Your task to perform on an android device: Open Google Maps and go to "Timeline" Image 0: 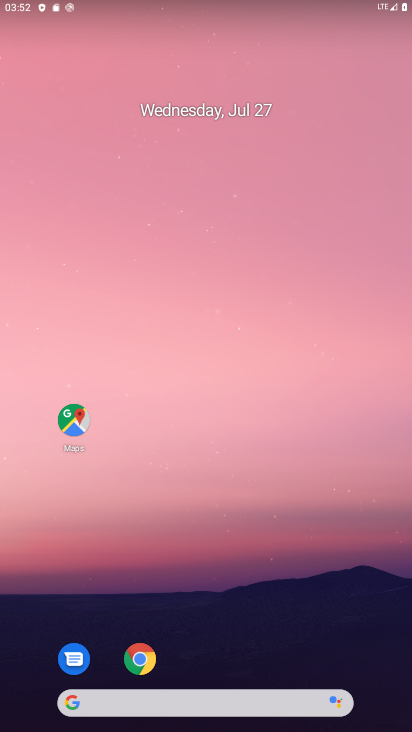
Step 0: click (68, 421)
Your task to perform on an android device: Open Google Maps and go to "Timeline" Image 1: 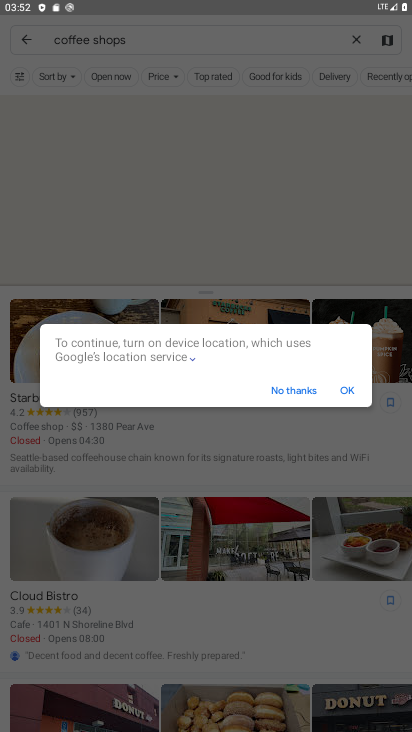
Step 1: click (360, 41)
Your task to perform on an android device: Open Google Maps and go to "Timeline" Image 2: 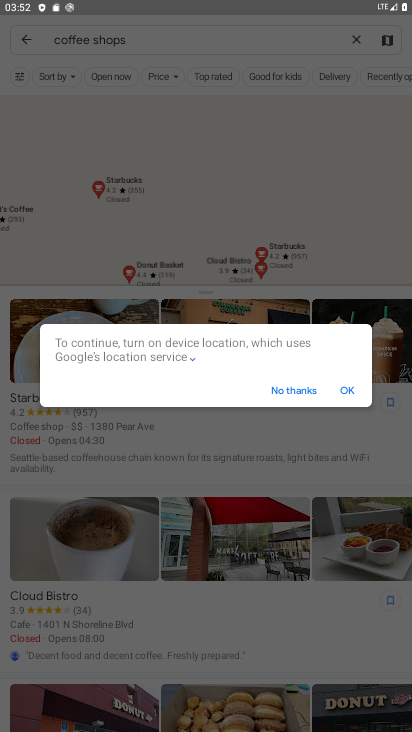
Step 2: click (277, 391)
Your task to perform on an android device: Open Google Maps and go to "Timeline" Image 3: 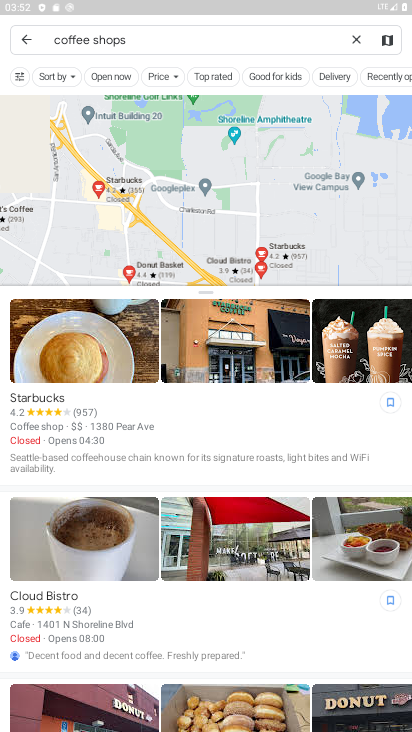
Step 3: click (357, 41)
Your task to perform on an android device: Open Google Maps and go to "Timeline" Image 4: 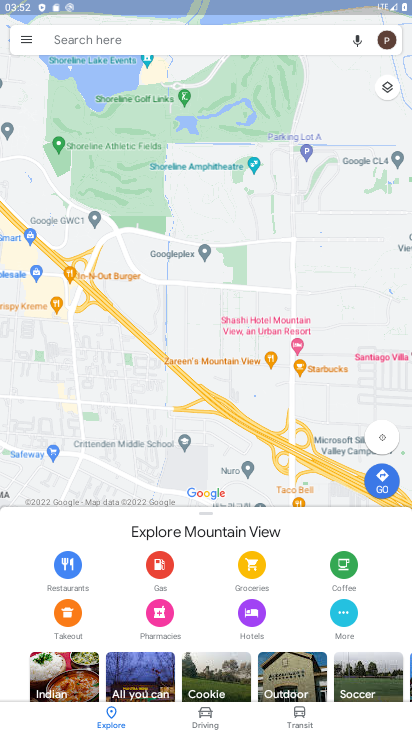
Step 4: click (27, 38)
Your task to perform on an android device: Open Google Maps and go to "Timeline" Image 5: 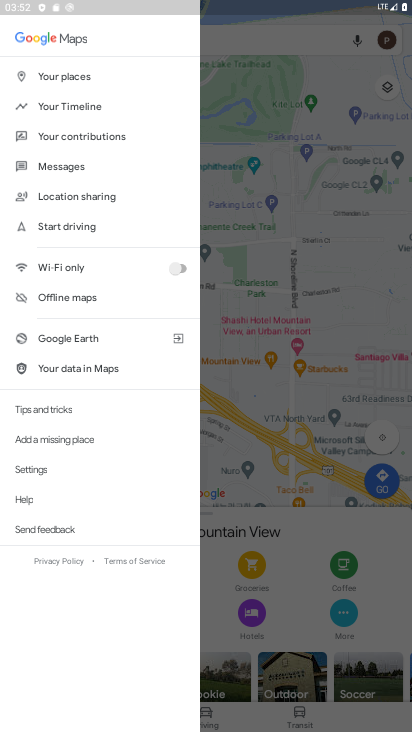
Step 5: click (43, 105)
Your task to perform on an android device: Open Google Maps and go to "Timeline" Image 6: 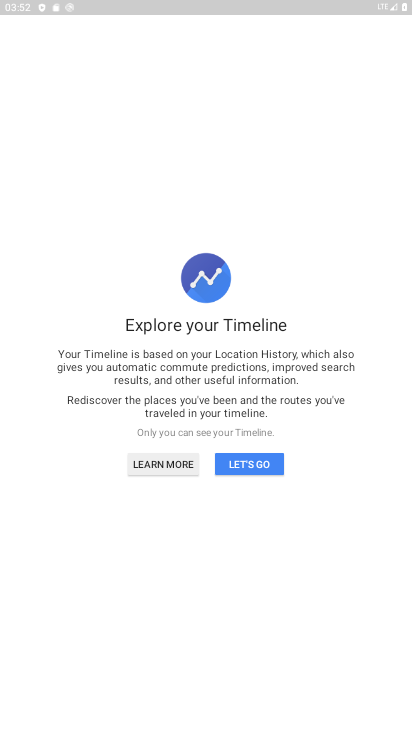
Step 6: click (239, 468)
Your task to perform on an android device: Open Google Maps and go to "Timeline" Image 7: 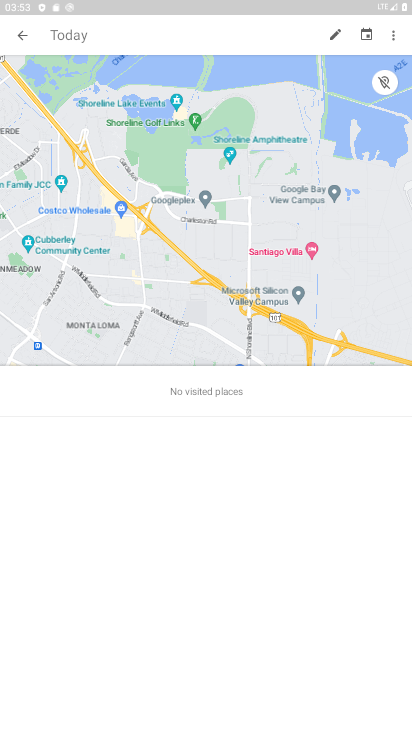
Step 7: task complete